Your task to perform on an android device: Go to Android settings Image 0: 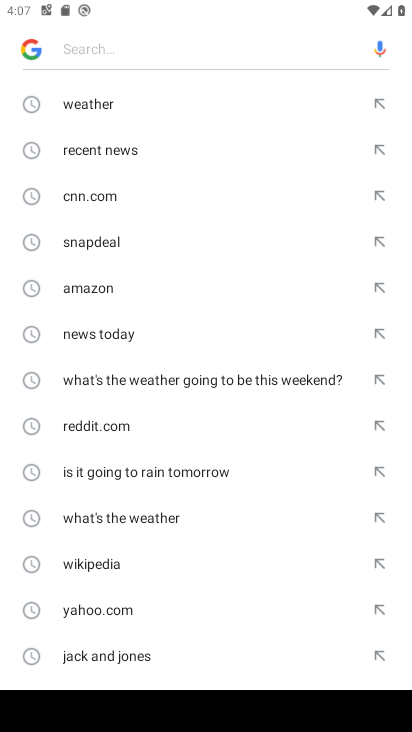
Step 0: press home button
Your task to perform on an android device: Go to Android settings Image 1: 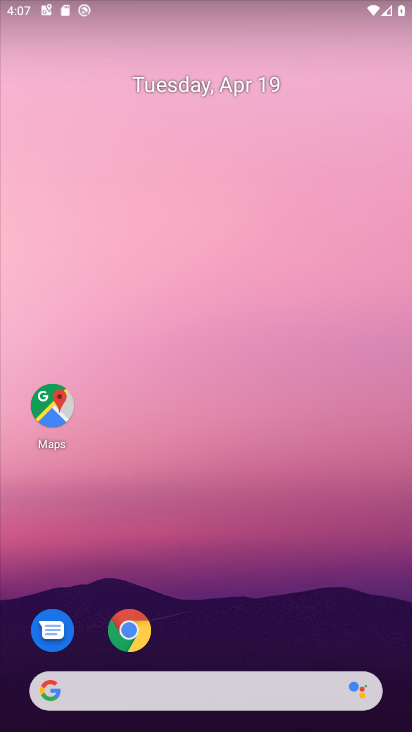
Step 1: drag from (289, 554) to (332, 198)
Your task to perform on an android device: Go to Android settings Image 2: 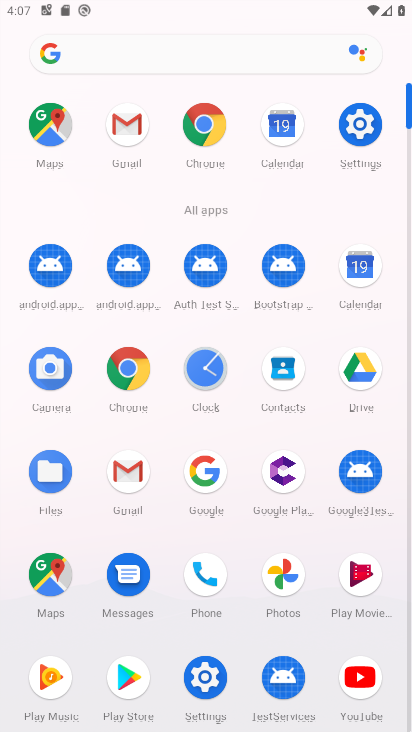
Step 2: click (204, 684)
Your task to perform on an android device: Go to Android settings Image 3: 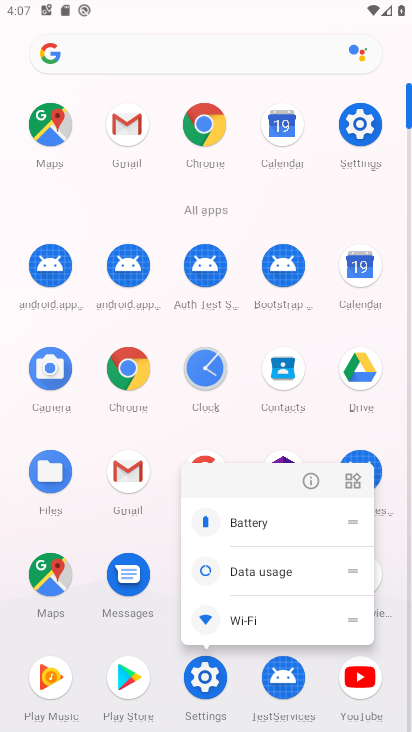
Step 3: click (210, 683)
Your task to perform on an android device: Go to Android settings Image 4: 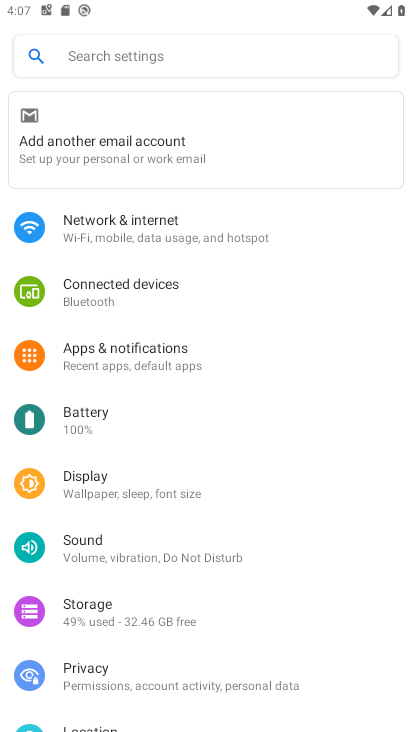
Step 4: drag from (172, 673) to (217, 190)
Your task to perform on an android device: Go to Android settings Image 5: 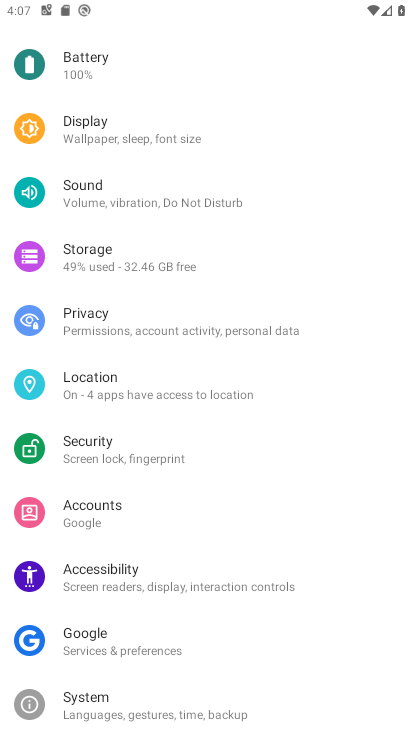
Step 5: drag from (138, 679) to (162, 388)
Your task to perform on an android device: Go to Android settings Image 6: 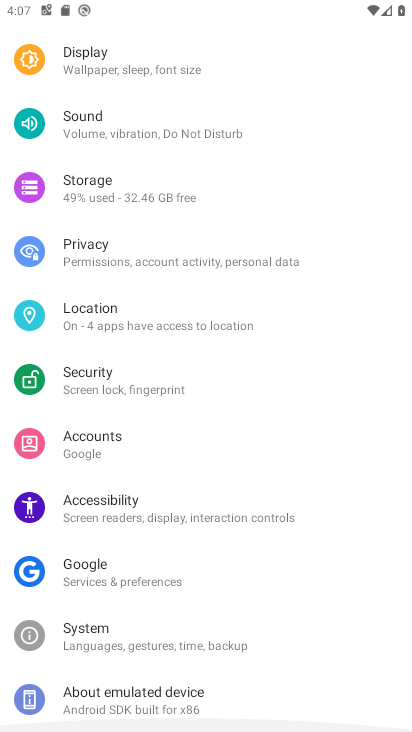
Step 6: click (96, 689)
Your task to perform on an android device: Go to Android settings Image 7: 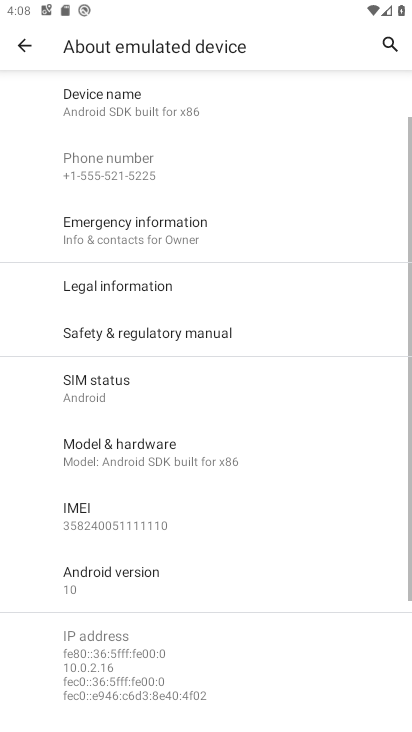
Step 7: task complete